Your task to perform on an android device: open a new tab in the chrome app Image 0: 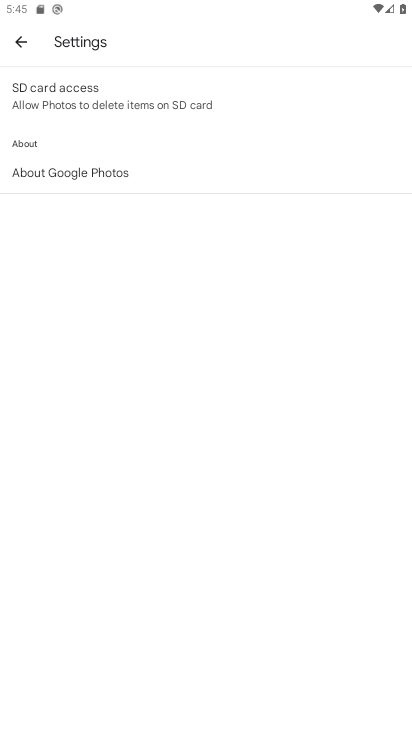
Step 0: press home button
Your task to perform on an android device: open a new tab in the chrome app Image 1: 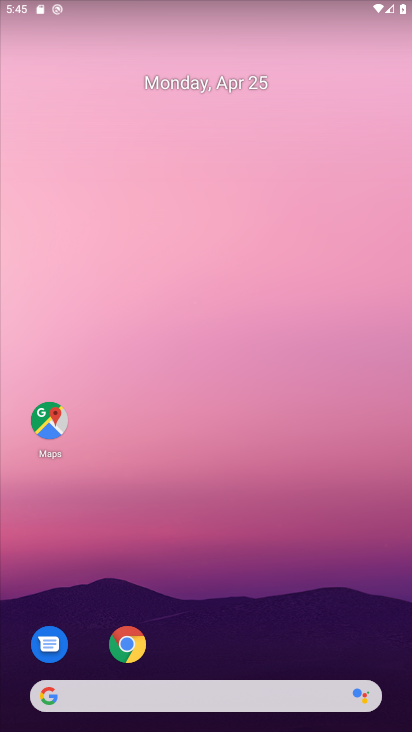
Step 1: click (123, 641)
Your task to perform on an android device: open a new tab in the chrome app Image 2: 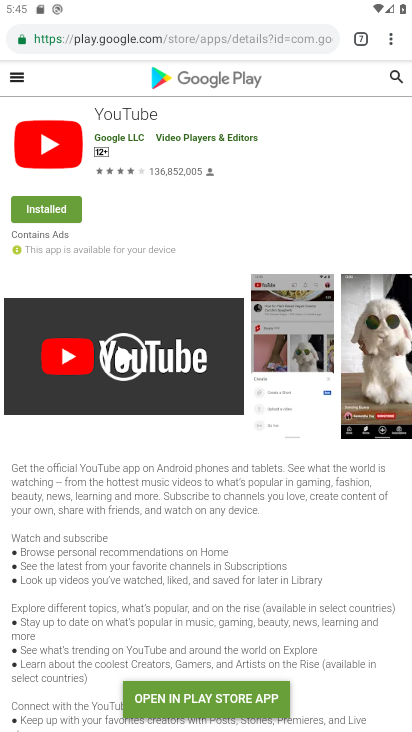
Step 2: click (358, 33)
Your task to perform on an android device: open a new tab in the chrome app Image 3: 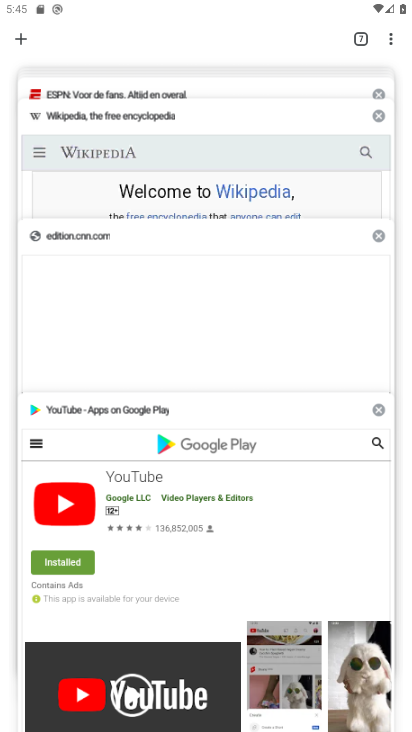
Step 3: click (25, 41)
Your task to perform on an android device: open a new tab in the chrome app Image 4: 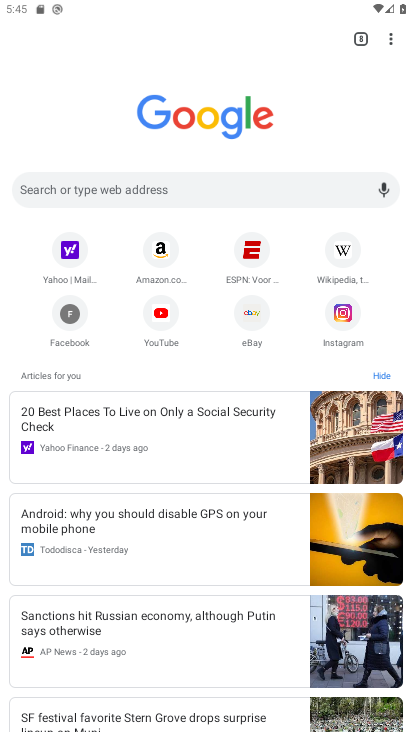
Step 4: task complete